Your task to perform on an android device: set the stopwatch Image 0: 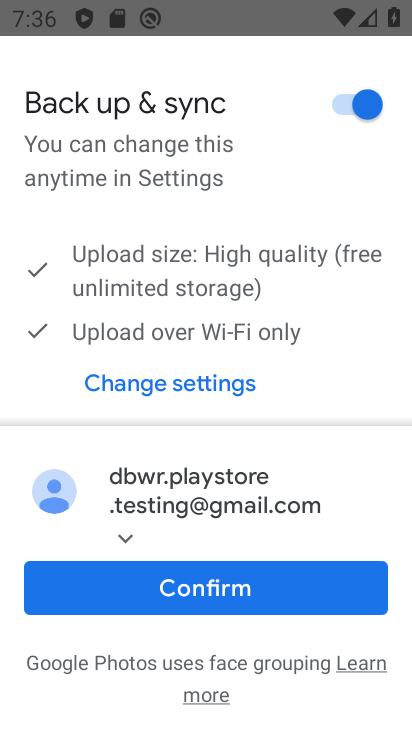
Step 0: press home button
Your task to perform on an android device: set the stopwatch Image 1: 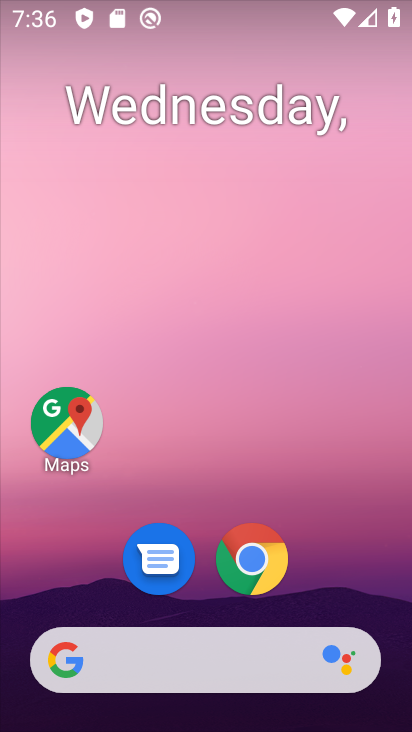
Step 1: drag from (338, 599) to (351, 15)
Your task to perform on an android device: set the stopwatch Image 2: 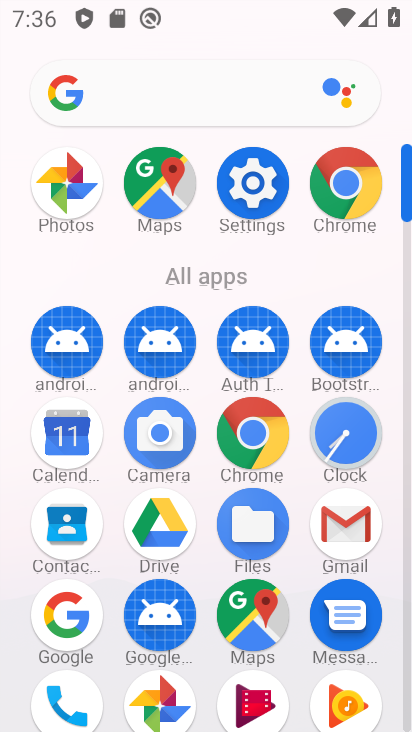
Step 2: click (347, 430)
Your task to perform on an android device: set the stopwatch Image 3: 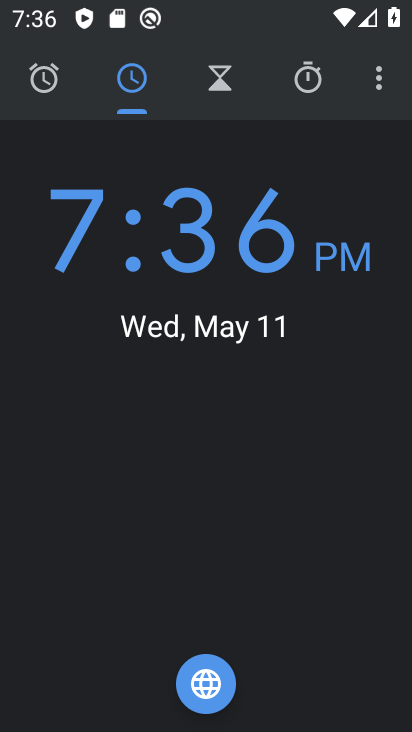
Step 3: click (318, 81)
Your task to perform on an android device: set the stopwatch Image 4: 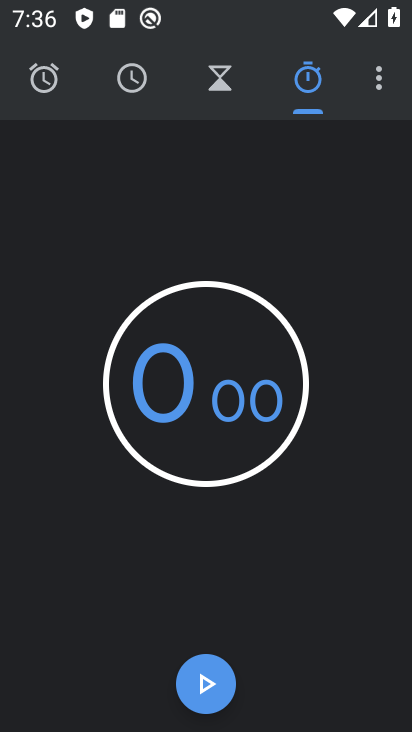
Step 4: click (203, 693)
Your task to perform on an android device: set the stopwatch Image 5: 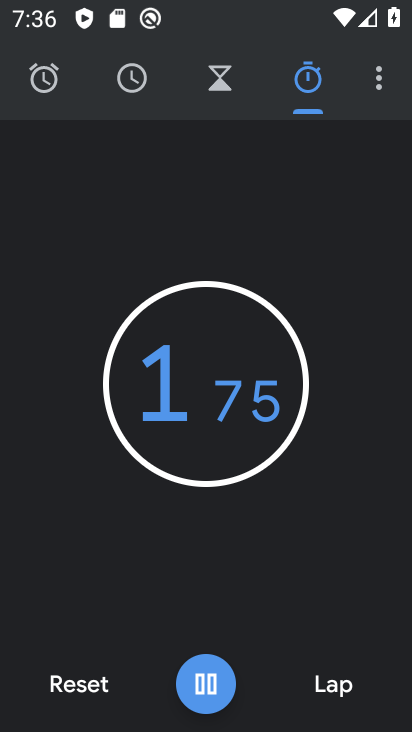
Step 5: click (203, 692)
Your task to perform on an android device: set the stopwatch Image 6: 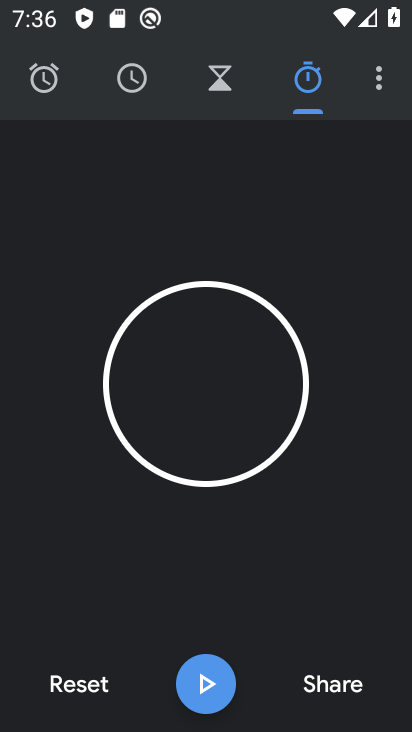
Step 6: task complete